Your task to perform on an android device: toggle notifications settings in the gmail app Image 0: 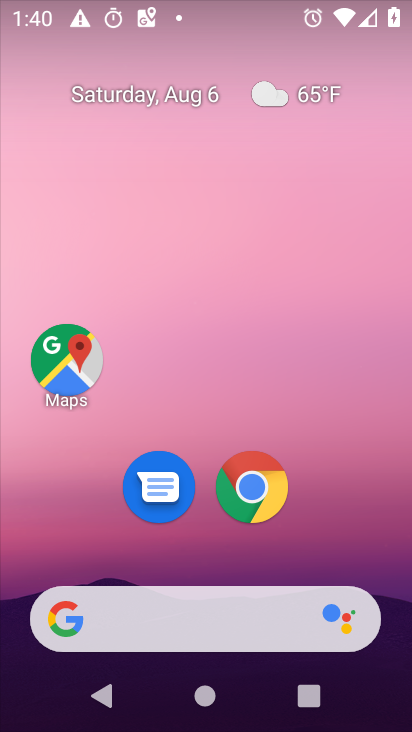
Step 0: drag from (187, 540) to (194, 26)
Your task to perform on an android device: toggle notifications settings in the gmail app Image 1: 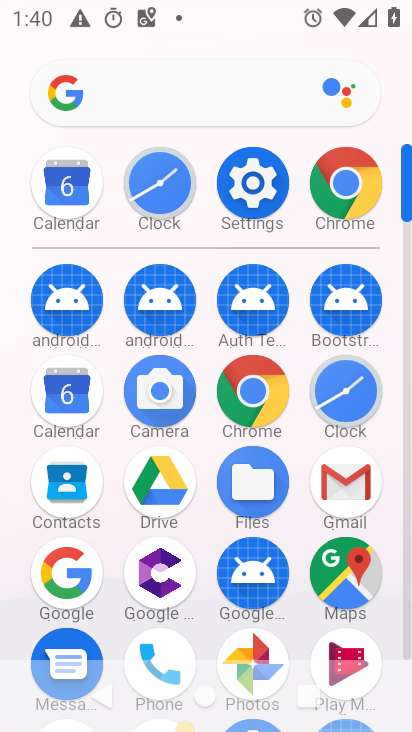
Step 1: click (340, 485)
Your task to perform on an android device: toggle notifications settings in the gmail app Image 2: 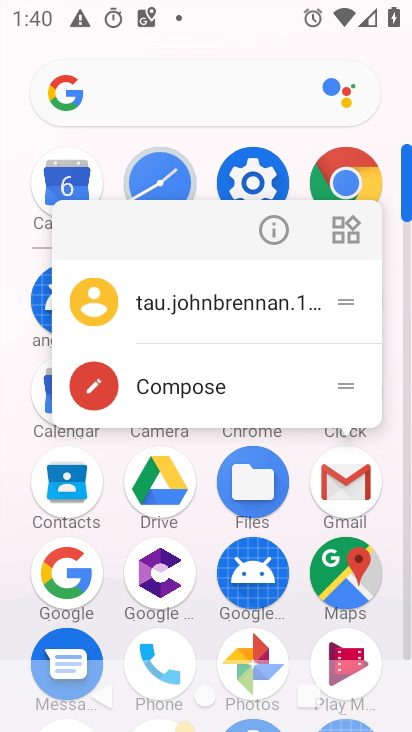
Step 2: click (282, 231)
Your task to perform on an android device: toggle notifications settings in the gmail app Image 3: 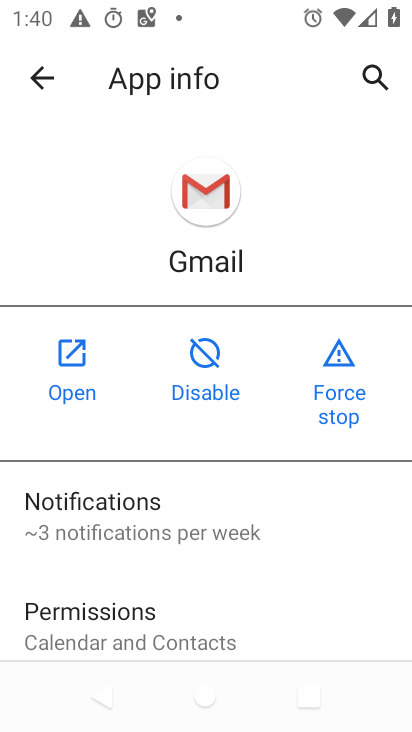
Step 3: click (130, 508)
Your task to perform on an android device: toggle notifications settings in the gmail app Image 4: 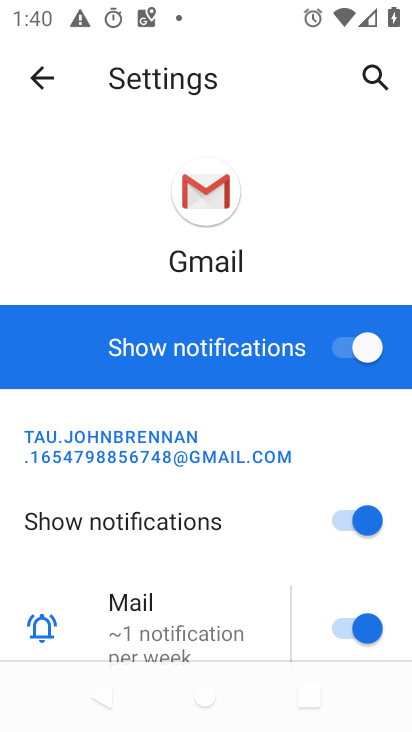
Step 4: click (370, 337)
Your task to perform on an android device: toggle notifications settings in the gmail app Image 5: 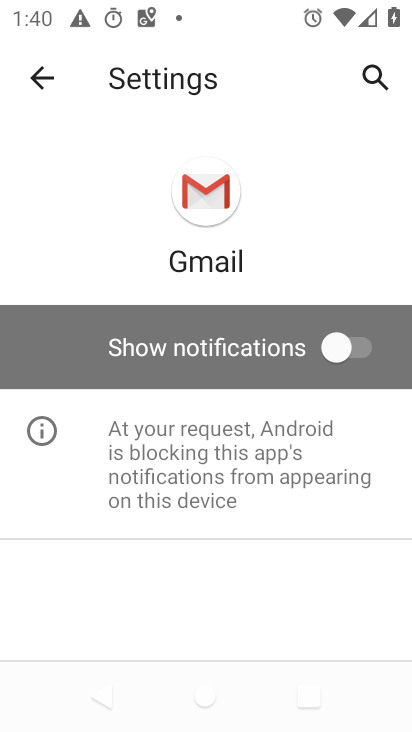
Step 5: task complete